Your task to perform on an android device: turn on the 12-hour format for clock Image 0: 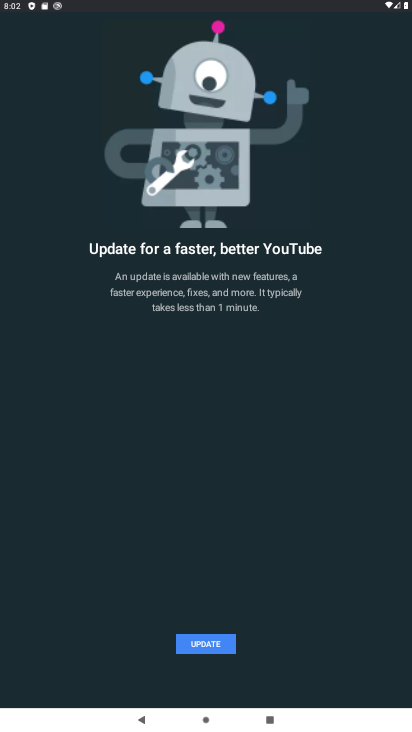
Step 0: press home button
Your task to perform on an android device: turn on the 12-hour format for clock Image 1: 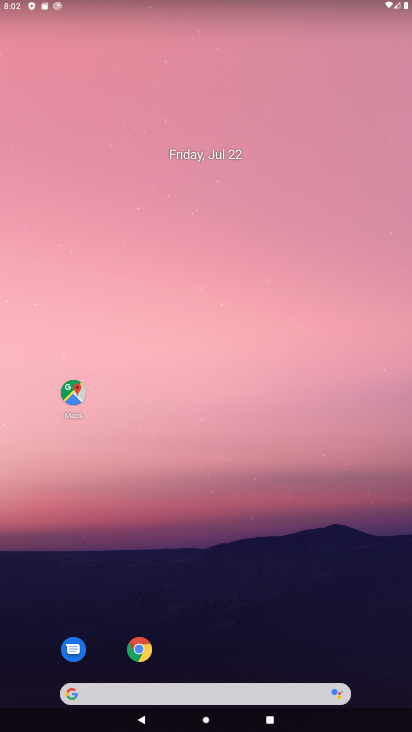
Step 1: drag from (218, 628) to (276, 191)
Your task to perform on an android device: turn on the 12-hour format for clock Image 2: 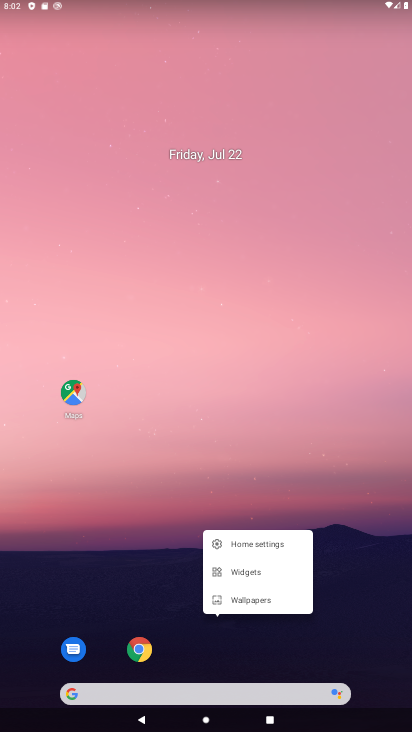
Step 2: click (204, 467)
Your task to perform on an android device: turn on the 12-hour format for clock Image 3: 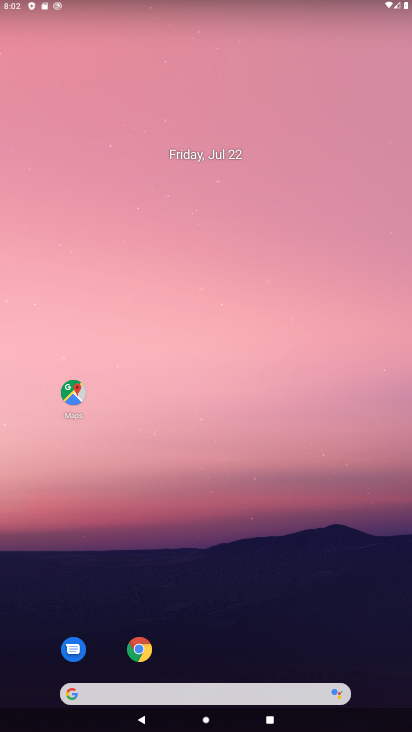
Step 3: drag from (245, 604) to (198, 190)
Your task to perform on an android device: turn on the 12-hour format for clock Image 4: 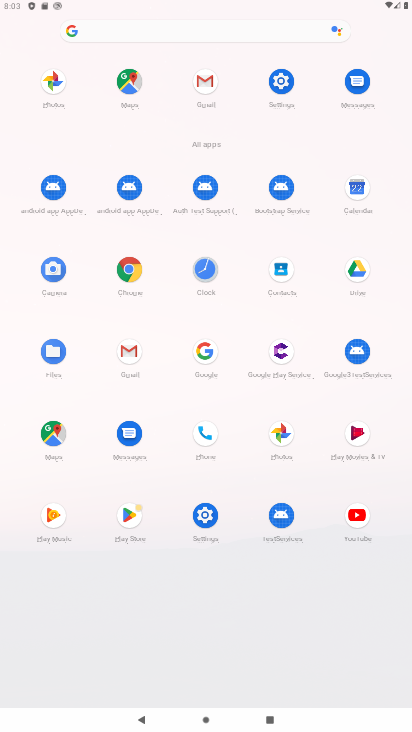
Step 4: click (204, 270)
Your task to perform on an android device: turn on the 12-hour format for clock Image 5: 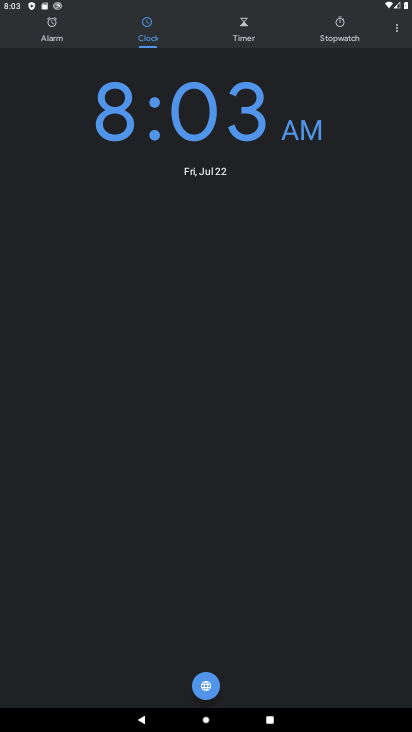
Step 5: click (401, 31)
Your task to perform on an android device: turn on the 12-hour format for clock Image 6: 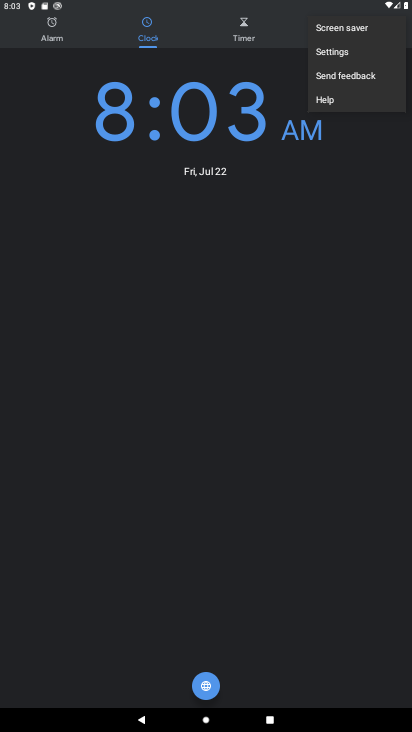
Step 6: click (336, 62)
Your task to perform on an android device: turn on the 12-hour format for clock Image 7: 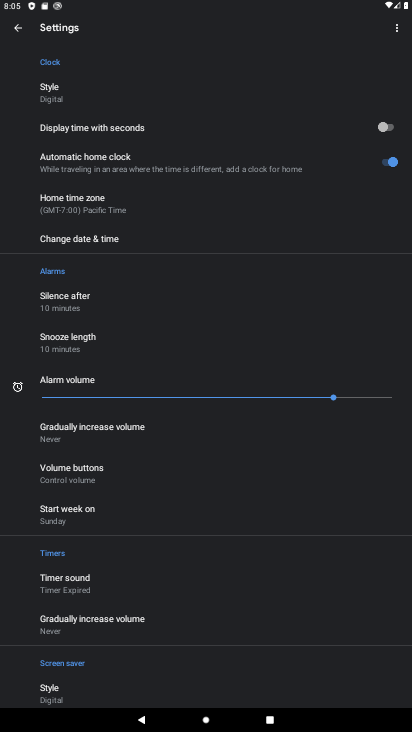
Step 7: click (385, 126)
Your task to perform on an android device: turn on the 12-hour format for clock Image 8: 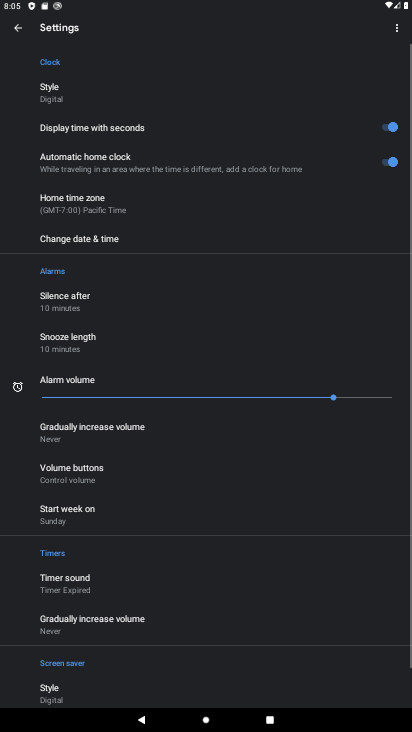
Step 8: task complete